Your task to perform on an android device: Open the Play Movies app and select the watchlist tab. Image 0: 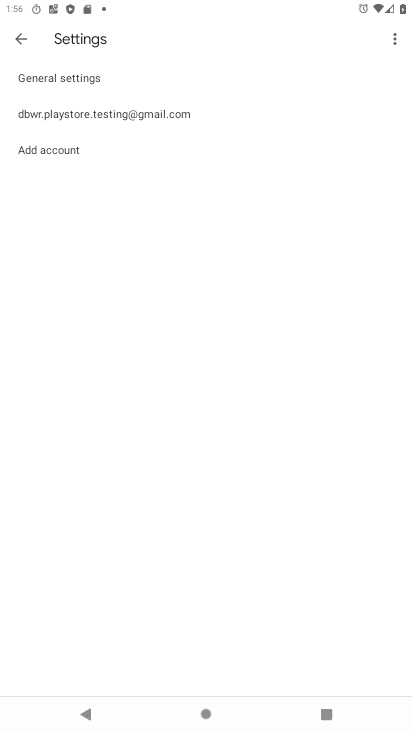
Step 0: press home button
Your task to perform on an android device: Open the Play Movies app and select the watchlist tab. Image 1: 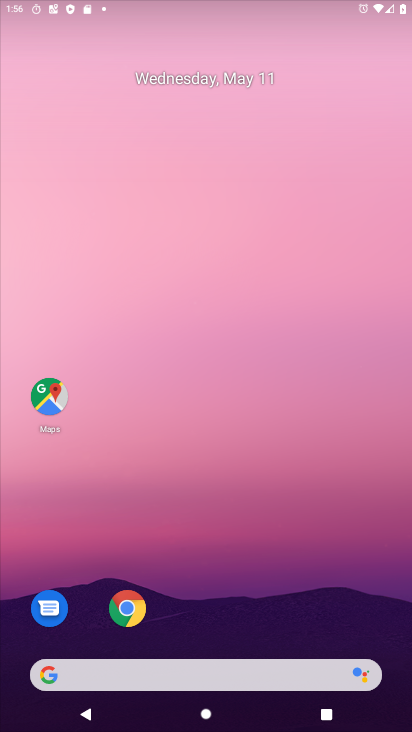
Step 1: drag from (305, 611) to (128, 27)
Your task to perform on an android device: Open the Play Movies app and select the watchlist tab. Image 2: 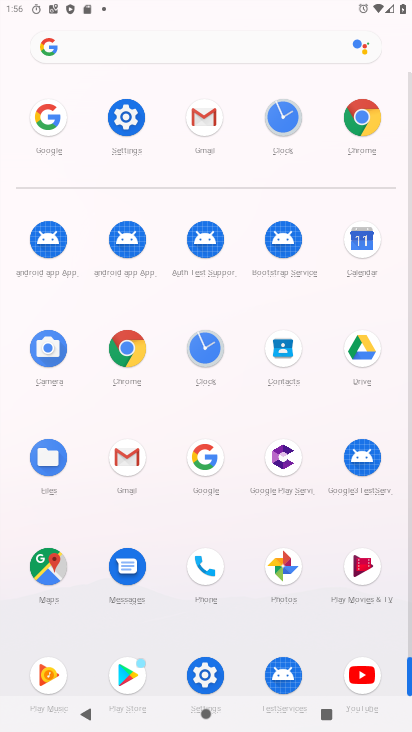
Step 2: drag from (248, 568) to (248, 313)
Your task to perform on an android device: Open the Play Movies app and select the watchlist tab. Image 3: 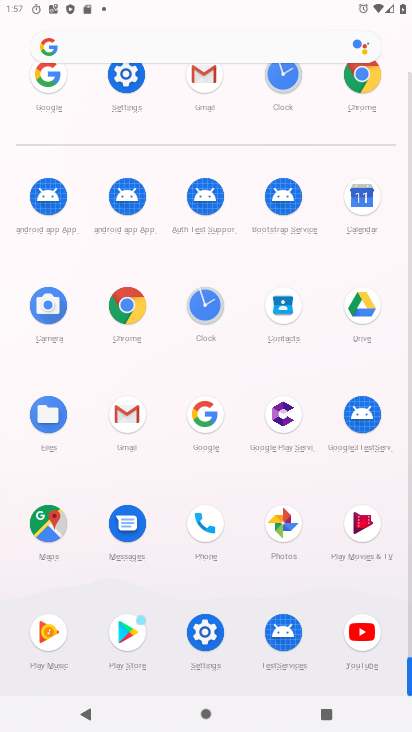
Step 3: click (345, 535)
Your task to perform on an android device: Open the Play Movies app and select the watchlist tab. Image 4: 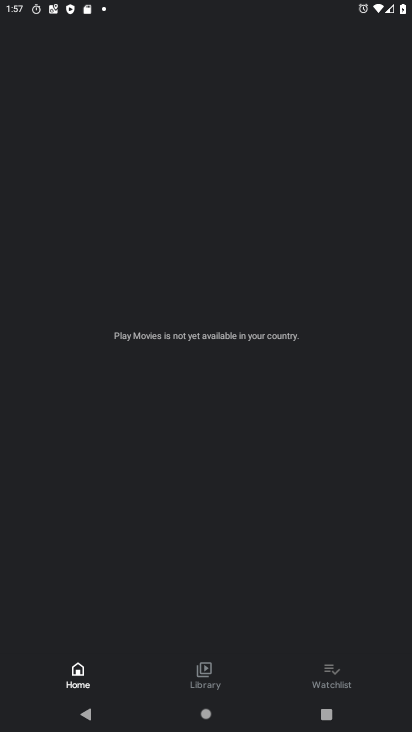
Step 4: click (337, 673)
Your task to perform on an android device: Open the Play Movies app and select the watchlist tab. Image 5: 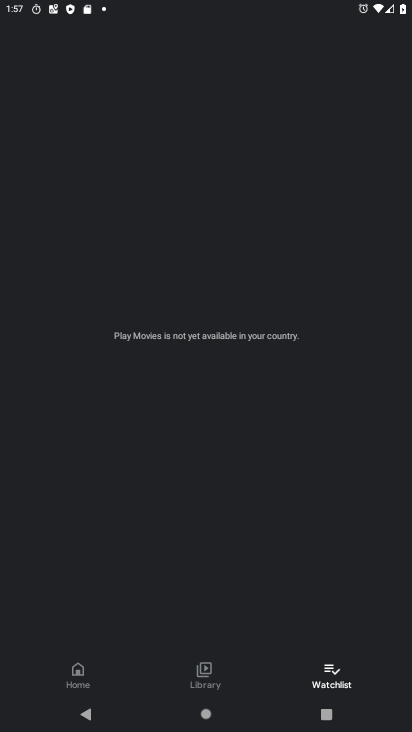
Step 5: task complete